Your task to perform on an android device: turn off sleep mode Image 0: 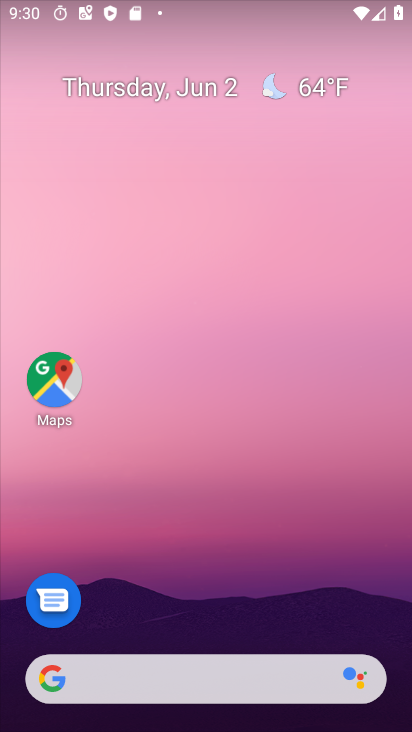
Step 0: drag from (208, 601) to (214, 39)
Your task to perform on an android device: turn off sleep mode Image 1: 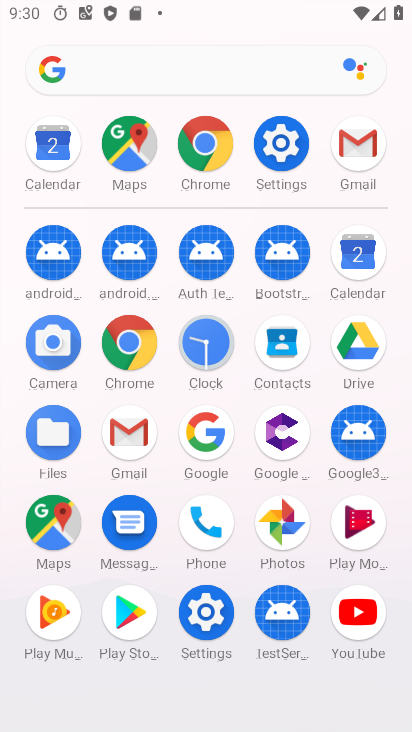
Step 1: click (281, 142)
Your task to perform on an android device: turn off sleep mode Image 2: 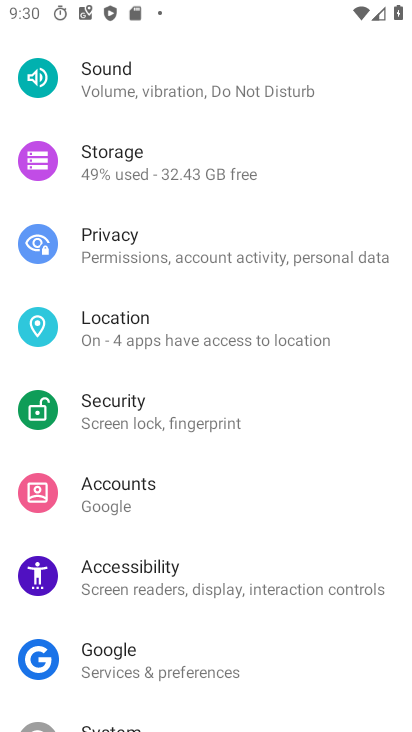
Step 2: drag from (194, 99) to (209, 388)
Your task to perform on an android device: turn off sleep mode Image 3: 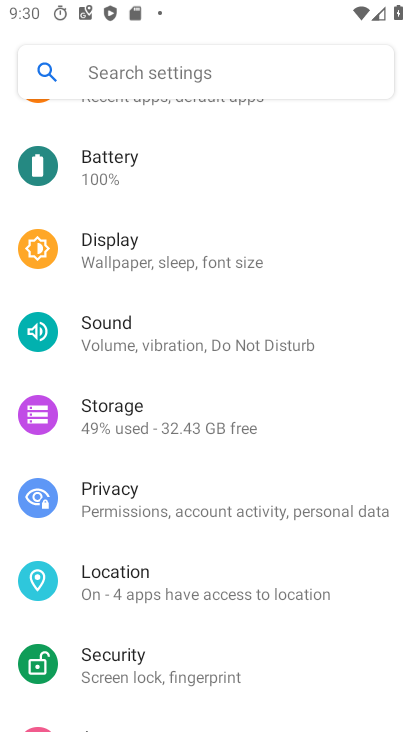
Step 3: click (161, 250)
Your task to perform on an android device: turn off sleep mode Image 4: 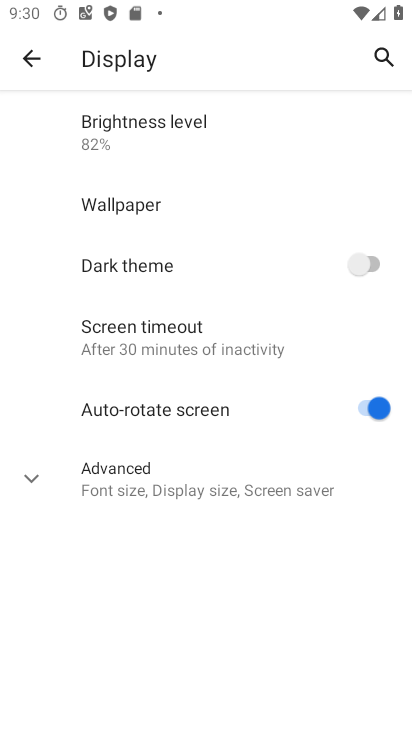
Step 4: click (156, 341)
Your task to perform on an android device: turn off sleep mode Image 5: 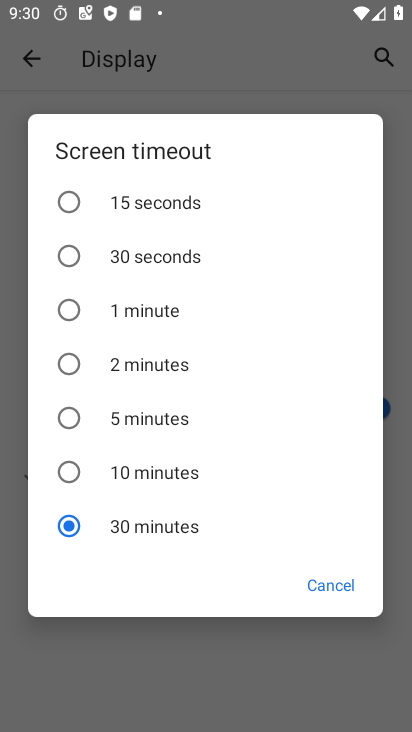
Step 5: click (71, 363)
Your task to perform on an android device: turn off sleep mode Image 6: 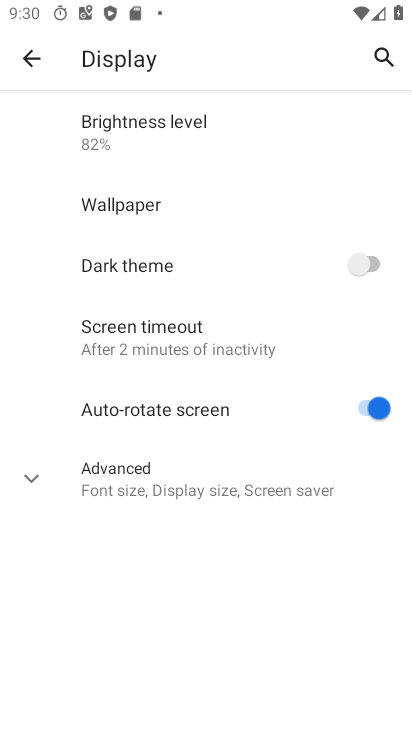
Step 6: task complete